Your task to perform on an android device: Open Yahoo.com Image 0: 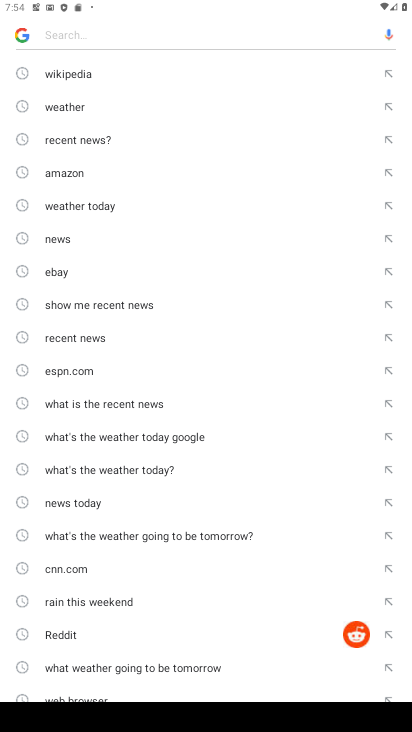
Step 0: click (69, 35)
Your task to perform on an android device: Open Yahoo.com Image 1: 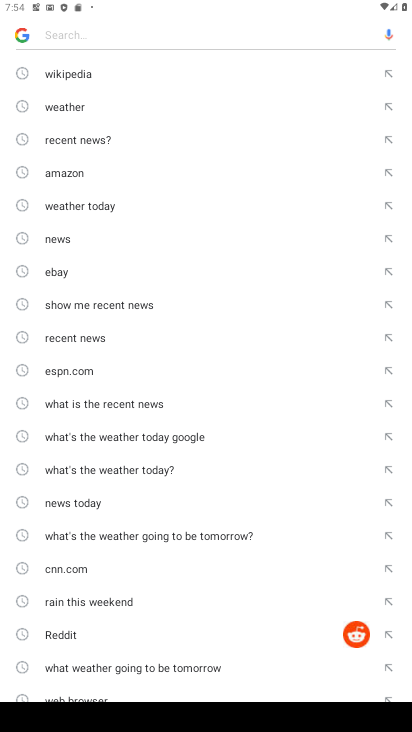
Step 1: type "yahoo.com"
Your task to perform on an android device: Open Yahoo.com Image 2: 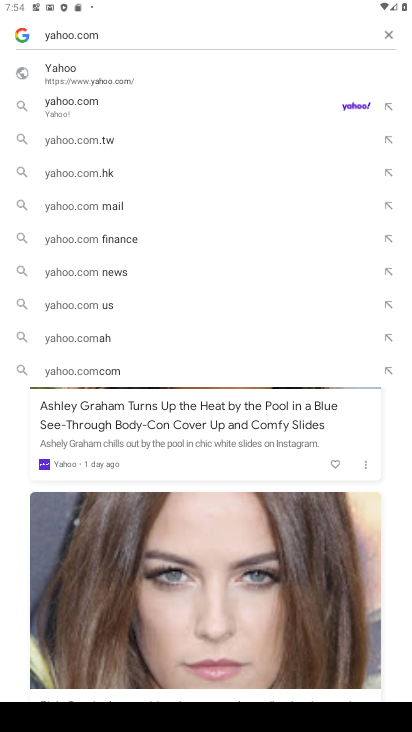
Step 2: click (51, 106)
Your task to perform on an android device: Open Yahoo.com Image 3: 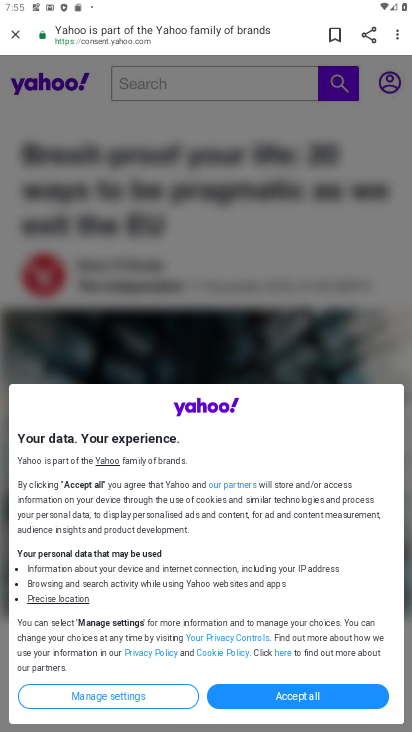
Step 3: click (284, 696)
Your task to perform on an android device: Open Yahoo.com Image 4: 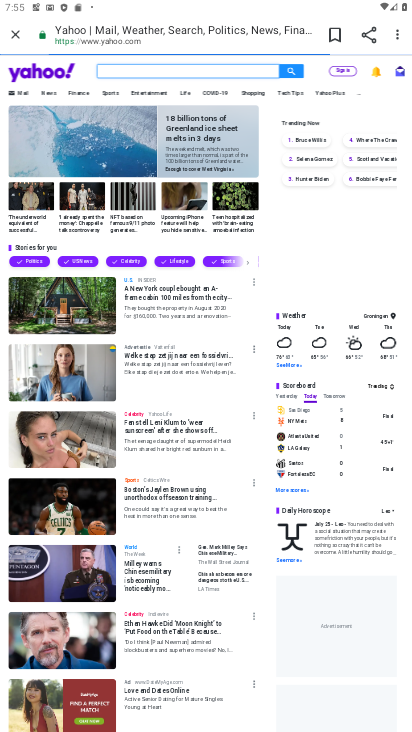
Step 4: task complete